Your task to perform on an android device: check battery use Image 0: 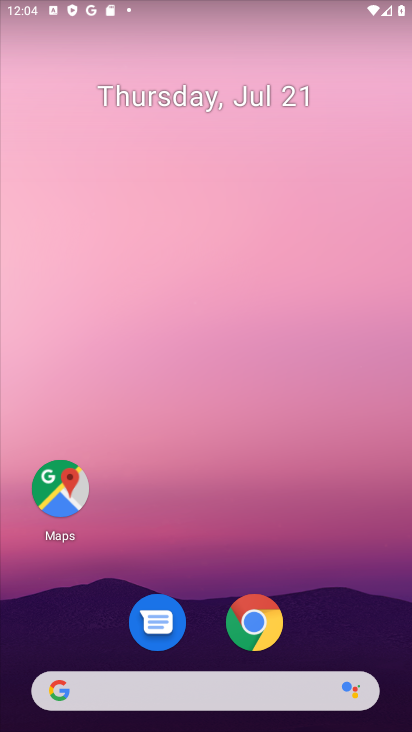
Step 0: press home button
Your task to perform on an android device: check battery use Image 1: 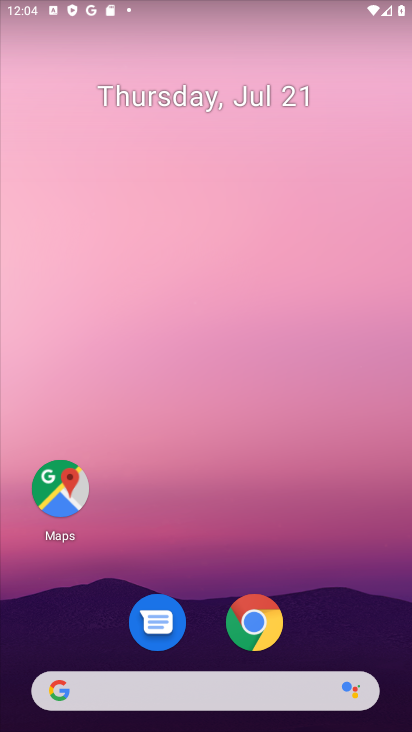
Step 1: drag from (266, 702) to (370, 113)
Your task to perform on an android device: check battery use Image 2: 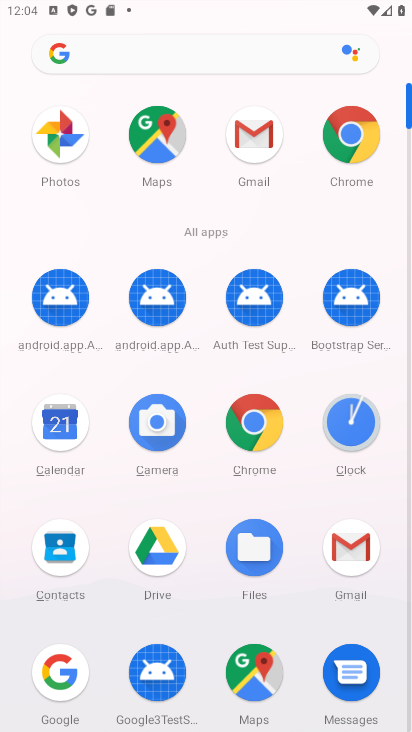
Step 2: drag from (243, 417) to (272, 280)
Your task to perform on an android device: check battery use Image 3: 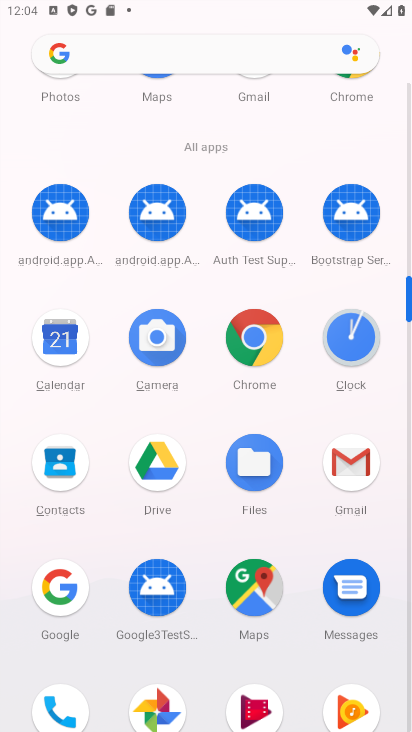
Step 3: drag from (205, 415) to (255, 315)
Your task to perform on an android device: check battery use Image 4: 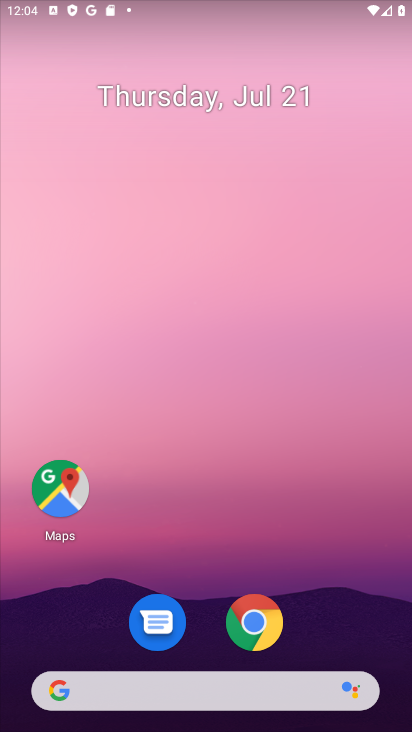
Step 4: drag from (266, 705) to (318, 202)
Your task to perform on an android device: check battery use Image 5: 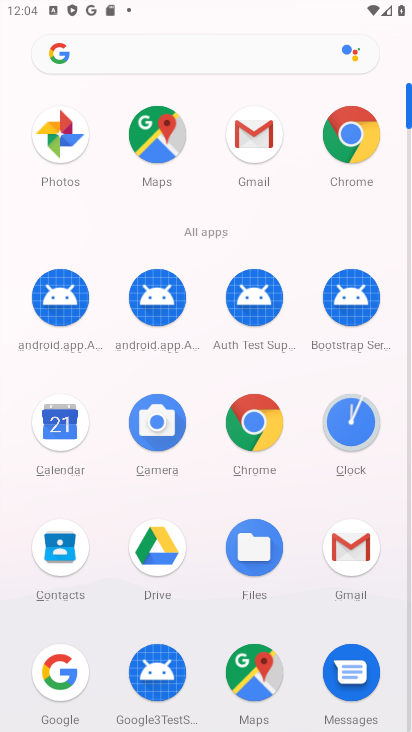
Step 5: drag from (206, 494) to (240, 263)
Your task to perform on an android device: check battery use Image 6: 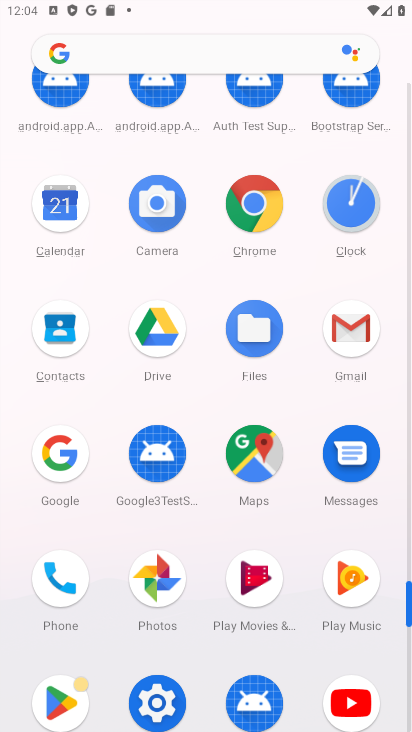
Step 6: click (161, 679)
Your task to perform on an android device: check battery use Image 7: 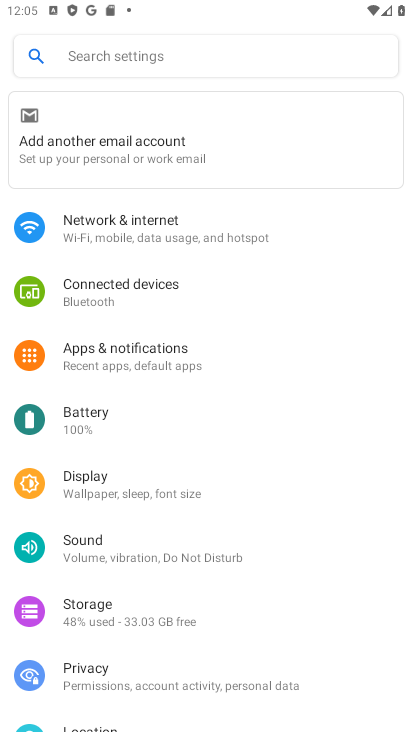
Step 7: click (114, 418)
Your task to perform on an android device: check battery use Image 8: 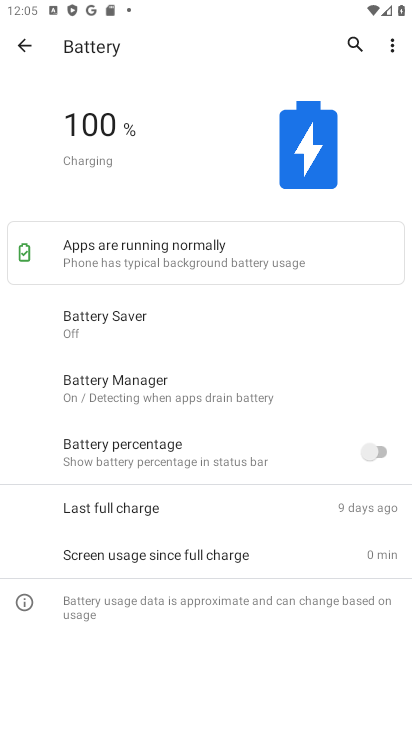
Step 8: task complete